Your task to perform on an android device: turn off notifications settings in the gmail app Image 0: 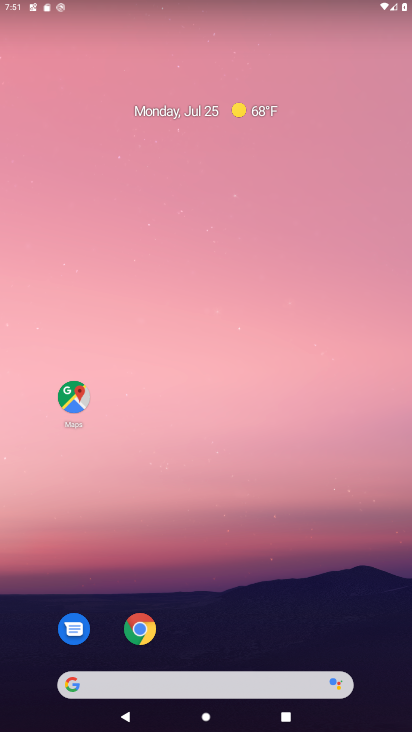
Step 0: drag from (211, 625) to (199, 250)
Your task to perform on an android device: turn off notifications settings in the gmail app Image 1: 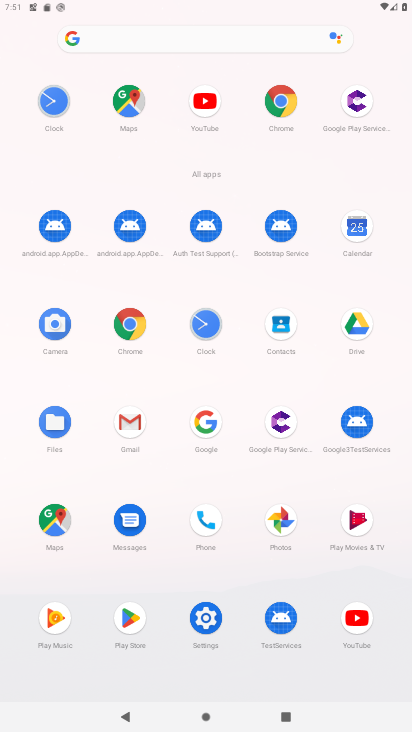
Step 1: click (131, 416)
Your task to perform on an android device: turn off notifications settings in the gmail app Image 2: 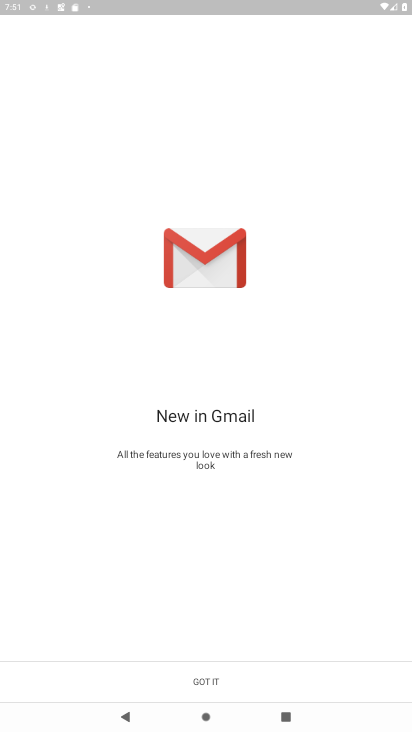
Step 2: click (218, 679)
Your task to perform on an android device: turn off notifications settings in the gmail app Image 3: 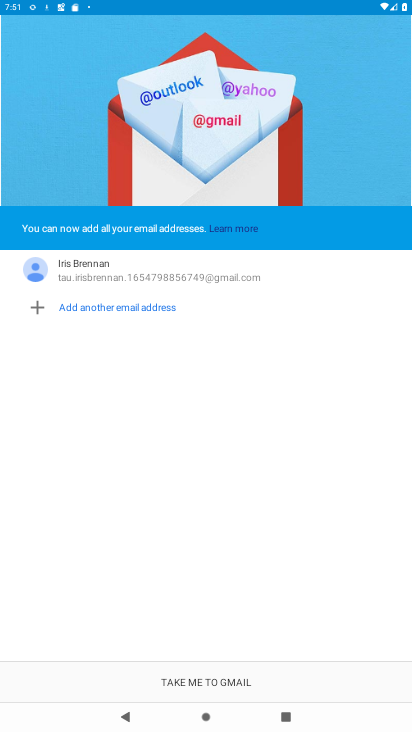
Step 3: click (218, 679)
Your task to perform on an android device: turn off notifications settings in the gmail app Image 4: 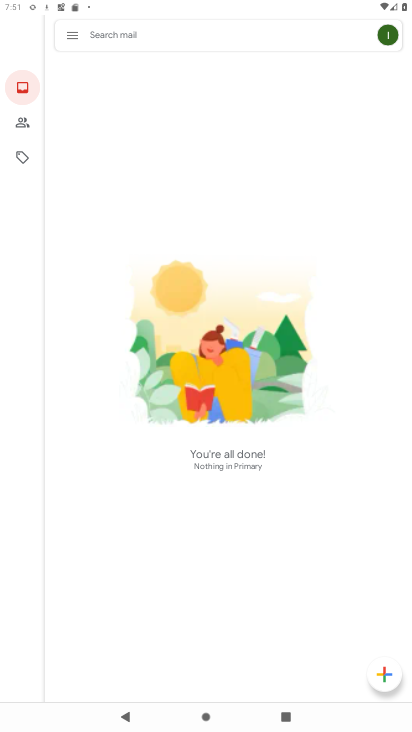
Step 4: click (74, 33)
Your task to perform on an android device: turn off notifications settings in the gmail app Image 5: 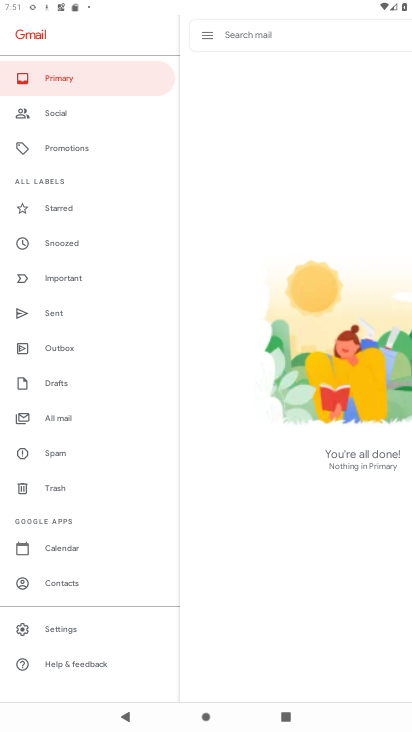
Step 5: click (71, 630)
Your task to perform on an android device: turn off notifications settings in the gmail app Image 6: 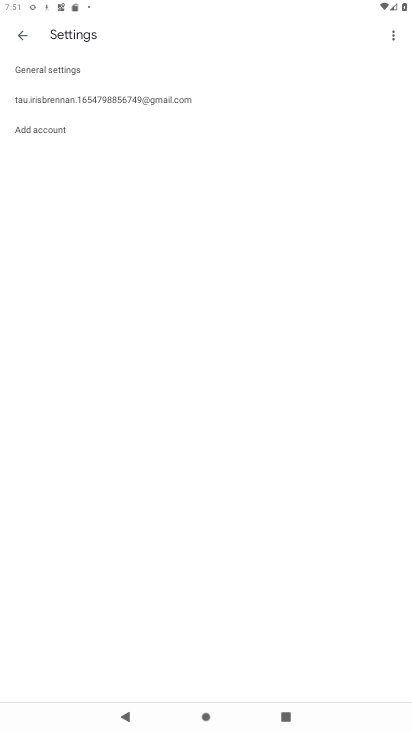
Step 6: click (59, 101)
Your task to perform on an android device: turn off notifications settings in the gmail app Image 7: 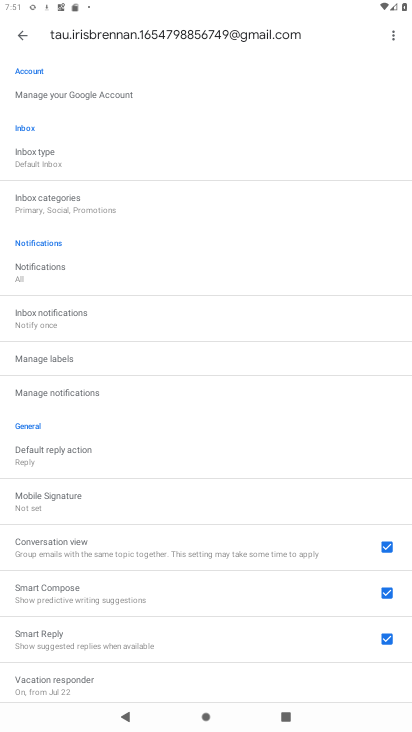
Step 7: click (62, 275)
Your task to perform on an android device: turn off notifications settings in the gmail app Image 8: 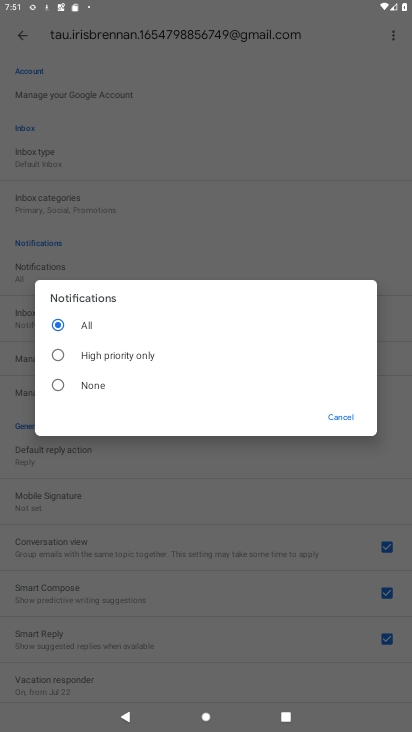
Step 8: click (95, 383)
Your task to perform on an android device: turn off notifications settings in the gmail app Image 9: 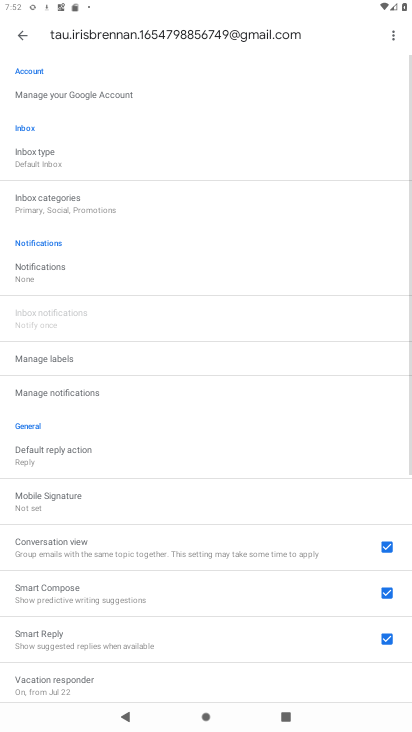
Step 9: task complete